Your task to perform on an android device: install app "Flipkart Online Shopping App" Image 0: 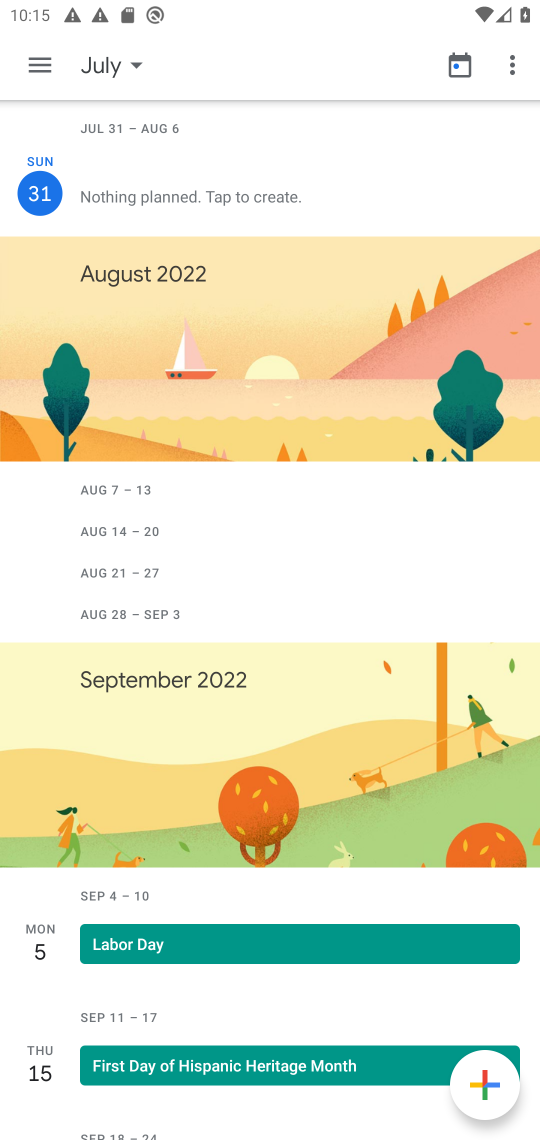
Step 0: press home button
Your task to perform on an android device: install app "Flipkart Online Shopping App" Image 1: 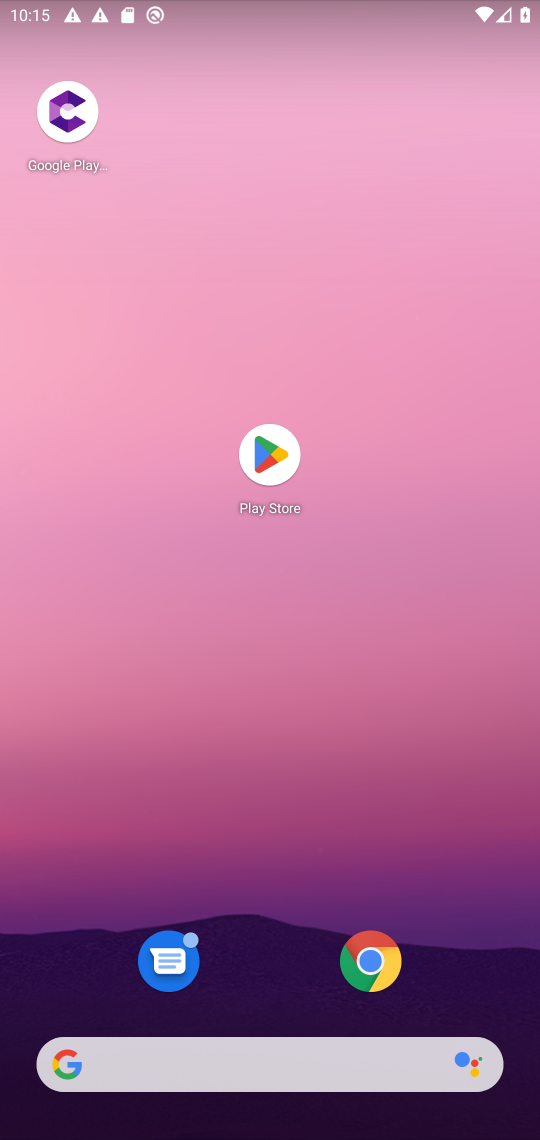
Step 1: click (268, 459)
Your task to perform on an android device: install app "Flipkart Online Shopping App" Image 2: 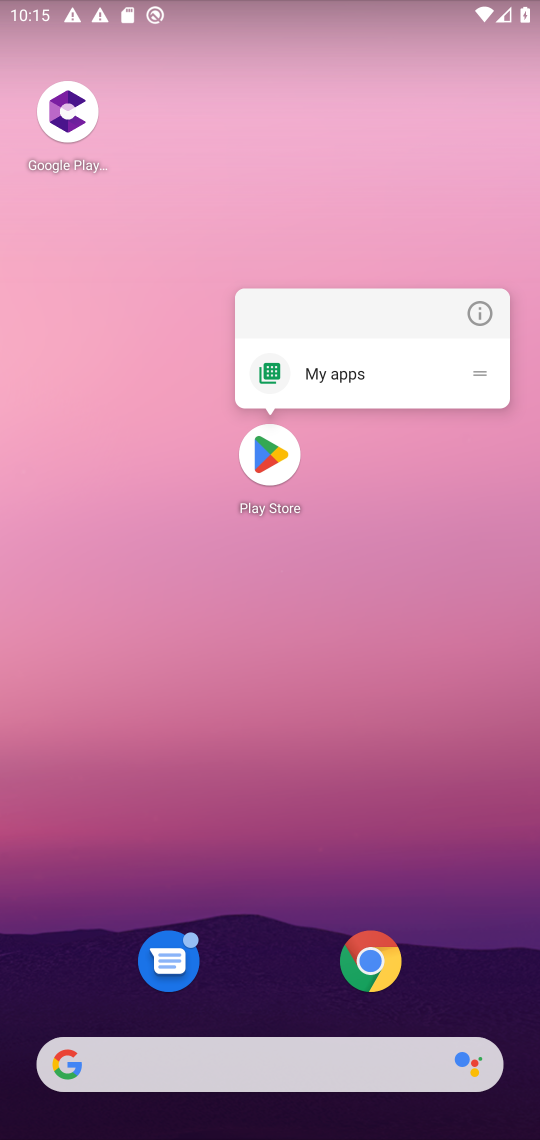
Step 2: click (269, 467)
Your task to perform on an android device: install app "Flipkart Online Shopping App" Image 3: 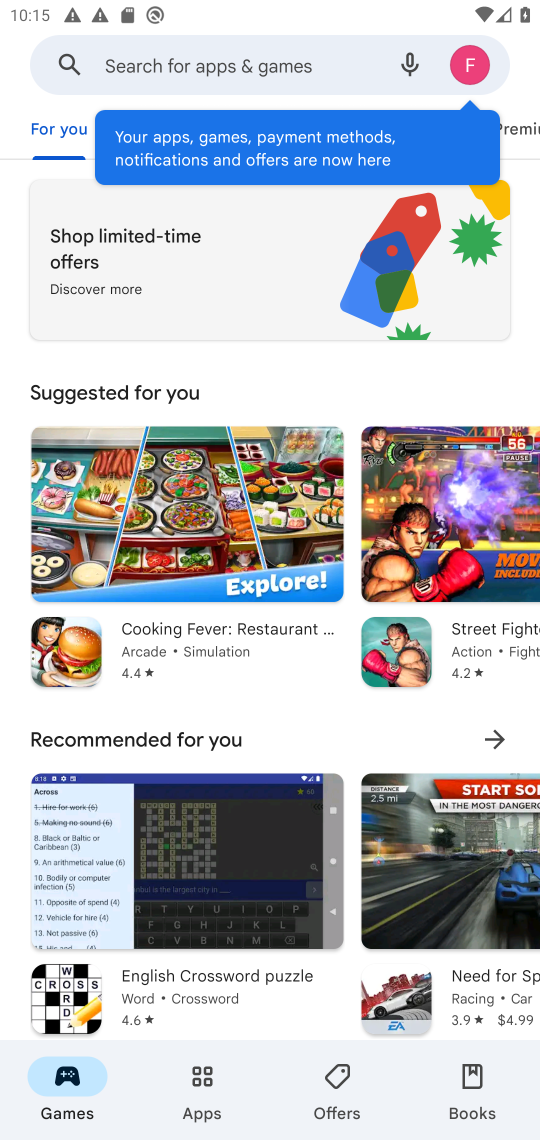
Step 3: click (195, 69)
Your task to perform on an android device: install app "Flipkart Online Shopping App" Image 4: 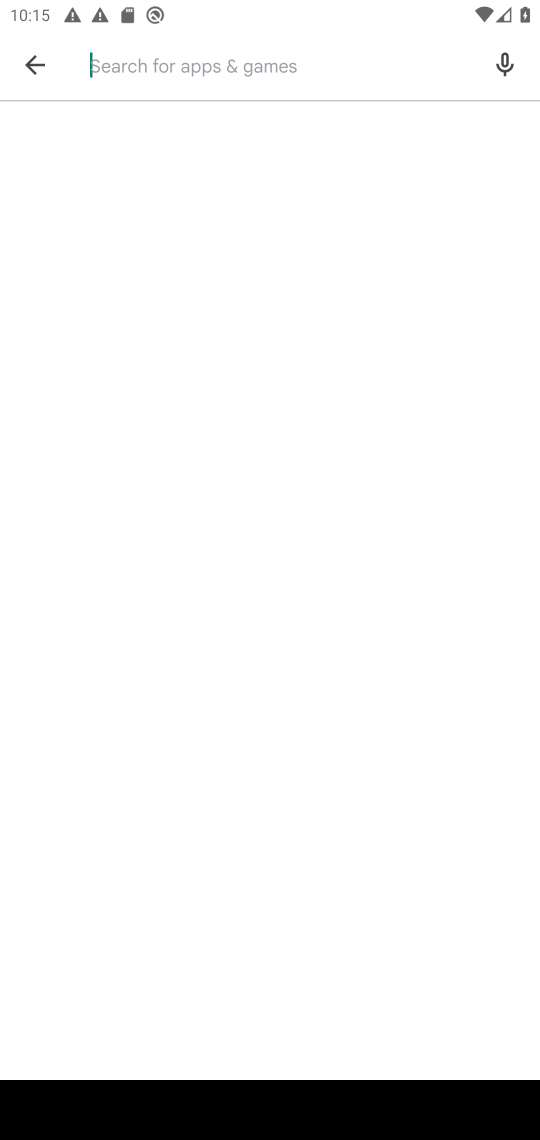
Step 4: type "flipkart"
Your task to perform on an android device: install app "Flipkart Online Shopping App" Image 5: 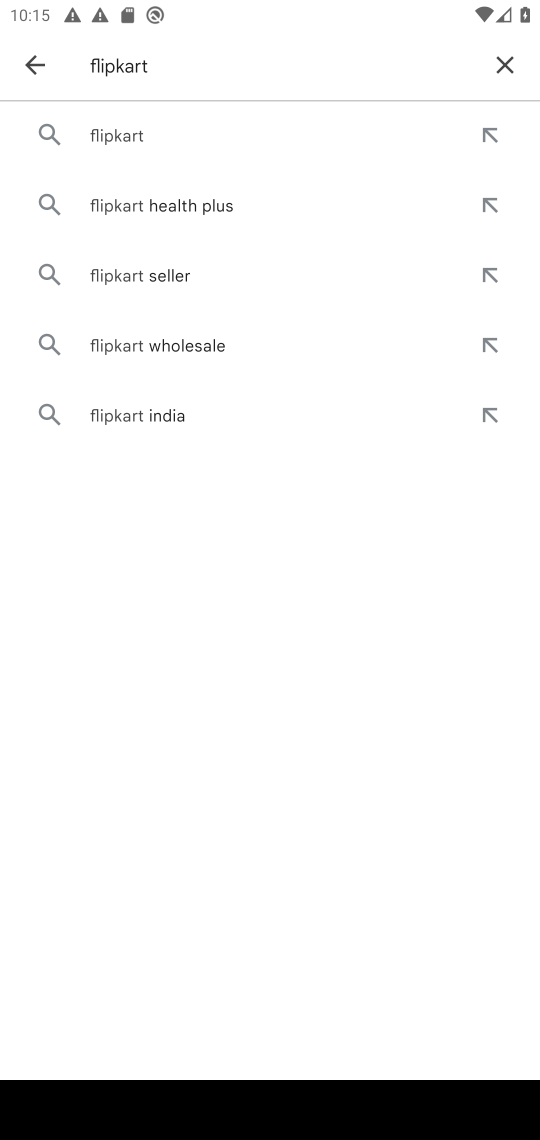
Step 5: click (98, 149)
Your task to perform on an android device: install app "Flipkart Online Shopping App" Image 6: 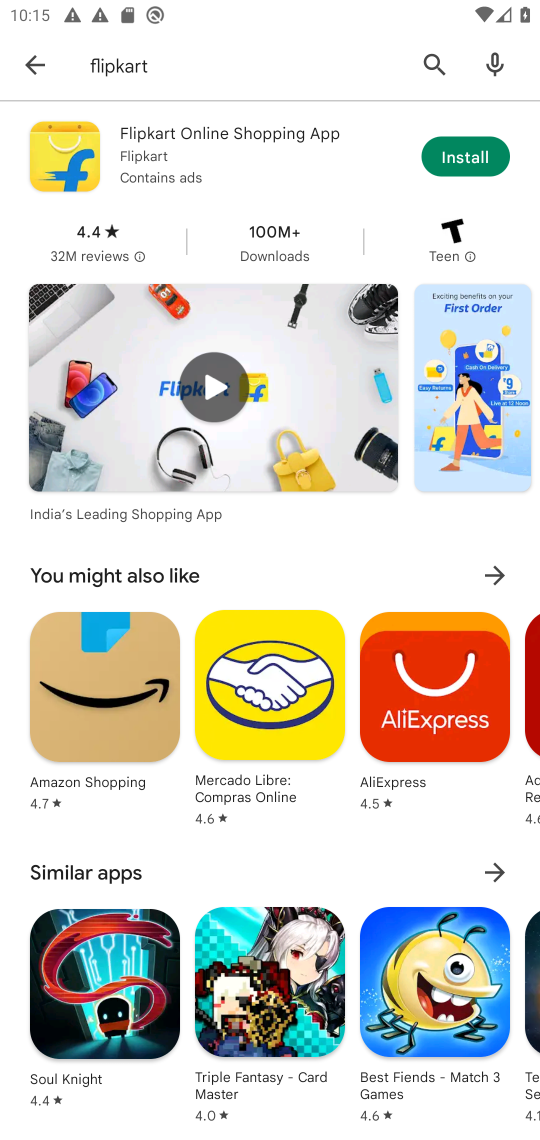
Step 6: click (429, 146)
Your task to perform on an android device: install app "Flipkart Online Shopping App" Image 7: 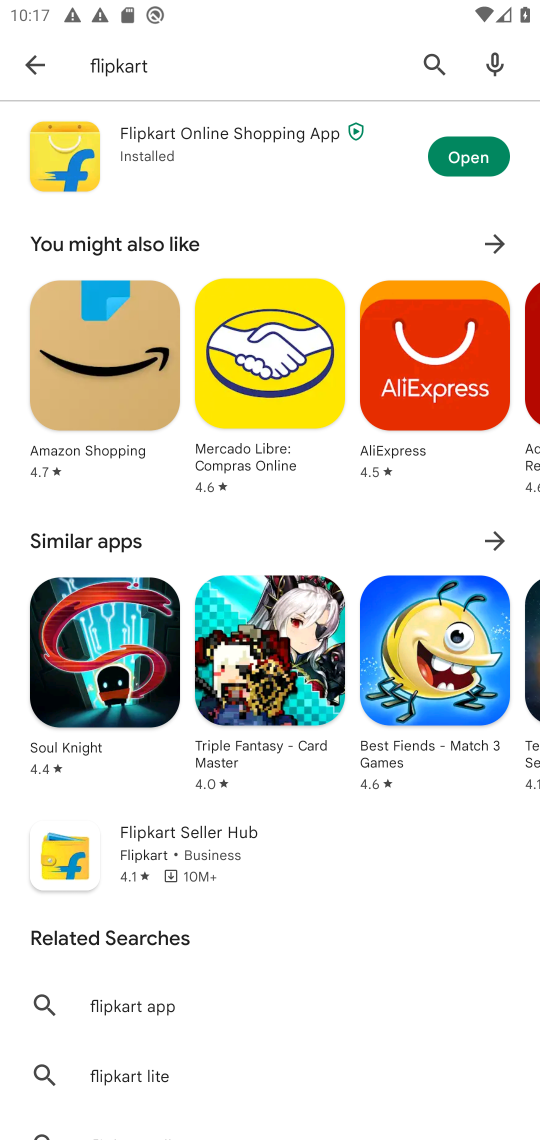
Step 7: task complete